Your task to perform on an android device: open sync settings in chrome Image 0: 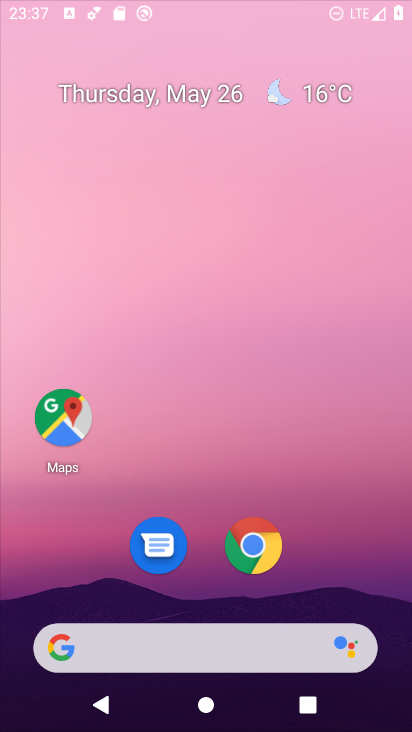
Step 0: press home button
Your task to perform on an android device: open sync settings in chrome Image 1: 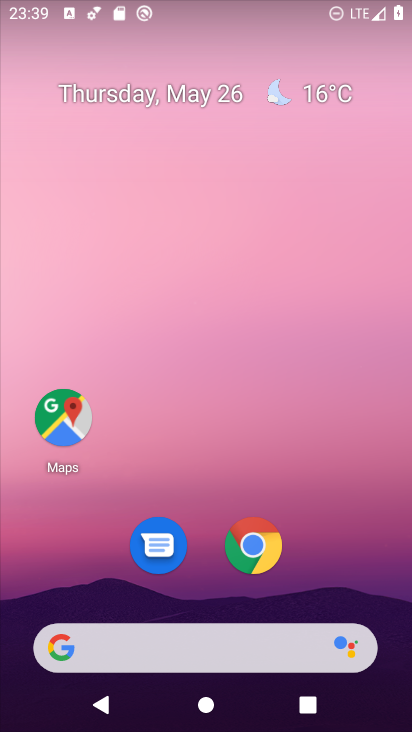
Step 1: click (261, 556)
Your task to perform on an android device: open sync settings in chrome Image 2: 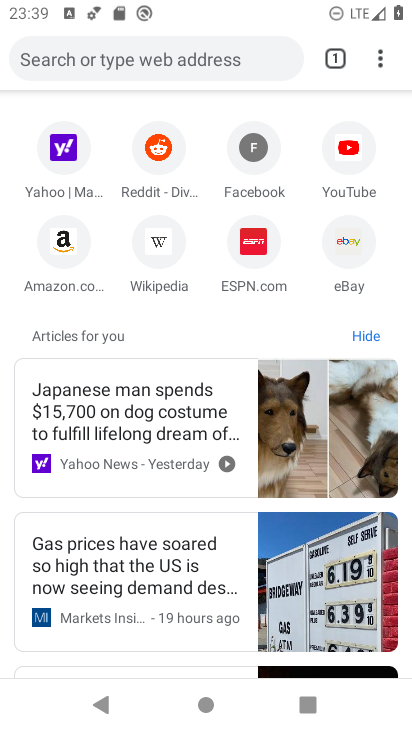
Step 2: drag from (382, 62) to (158, 498)
Your task to perform on an android device: open sync settings in chrome Image 3: 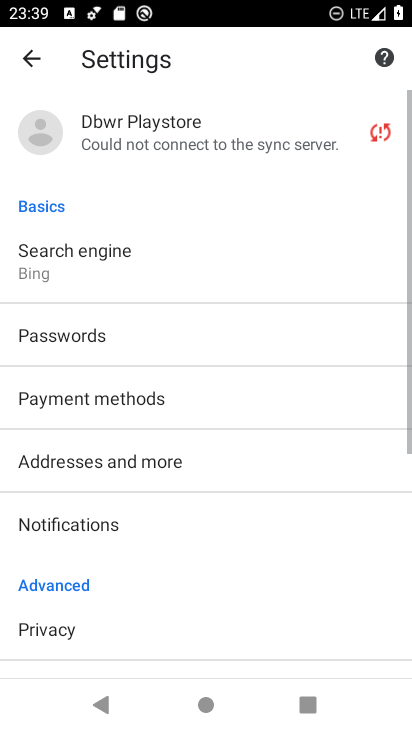
Step 3: click (164, 135)
Your task to perform on an android device: open sync settings in chrome Image 4: 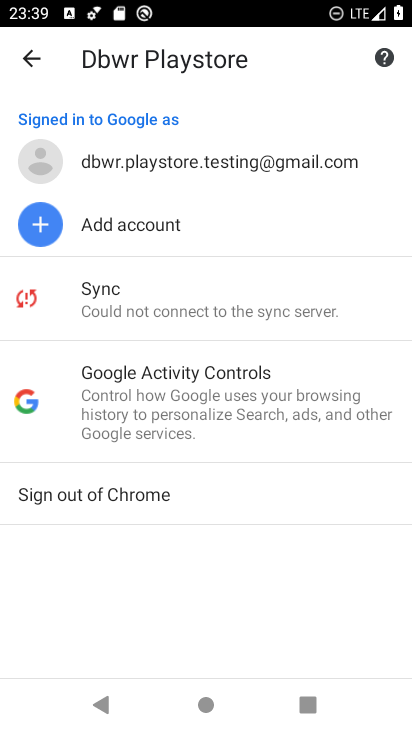
Step 4: click (116, 309)
Your task to perform on an android device: open sync settings in chrome Image 5: 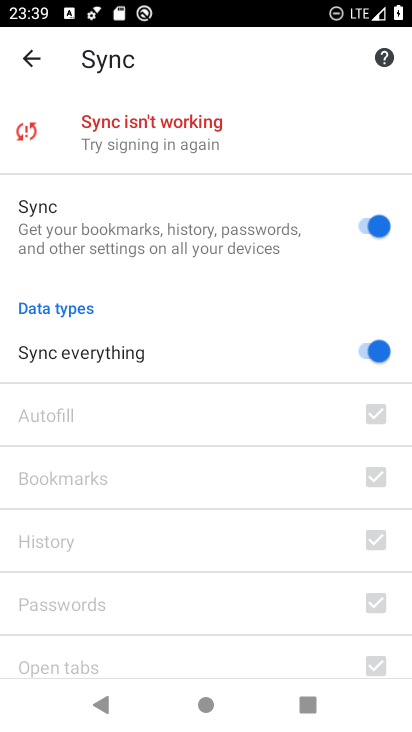
Step 5: task complete